Your task to perform on an android device: Go to eBay Image 0: 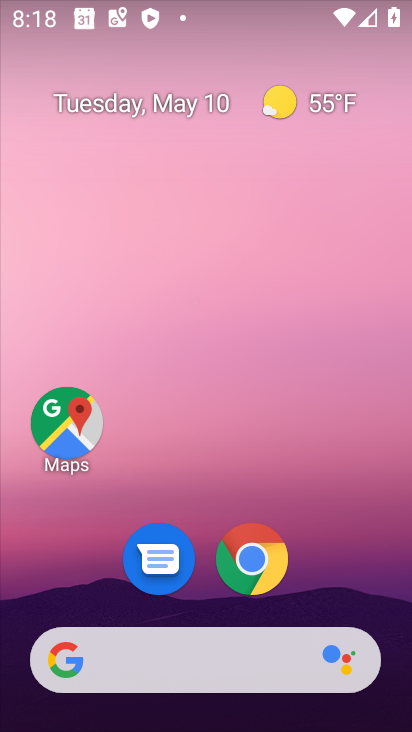
Step 0: click (250, 560)
Your task to perform on an android device: Go to eBay Image 1: 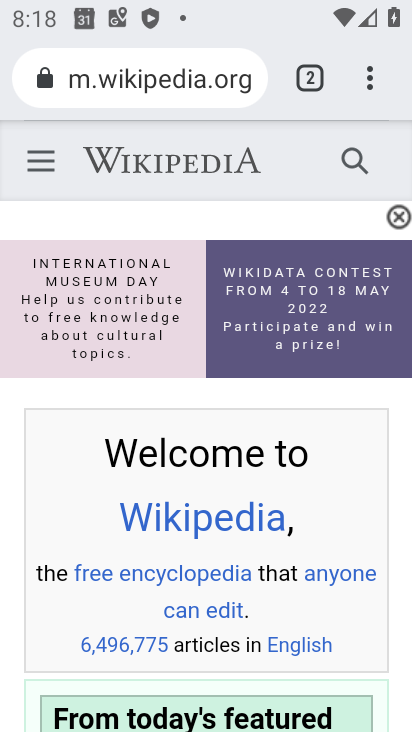
Step 1: click (368, 84)
Your task to perform on an android device: Go to eBay Image 2: 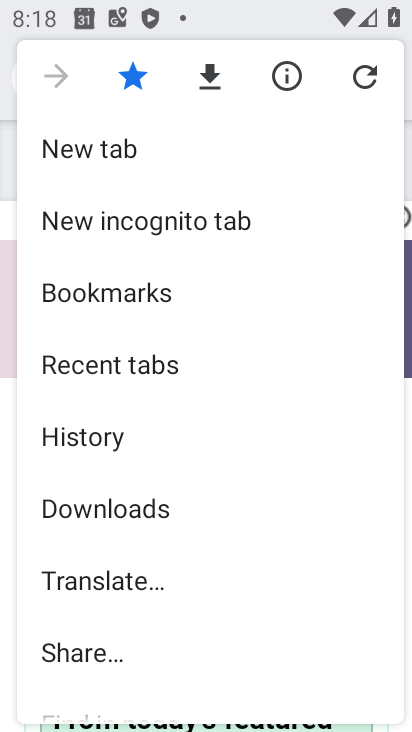
Step 2: click (85, 145)
Your task to perform on an android device: Go to eBay Image 3: 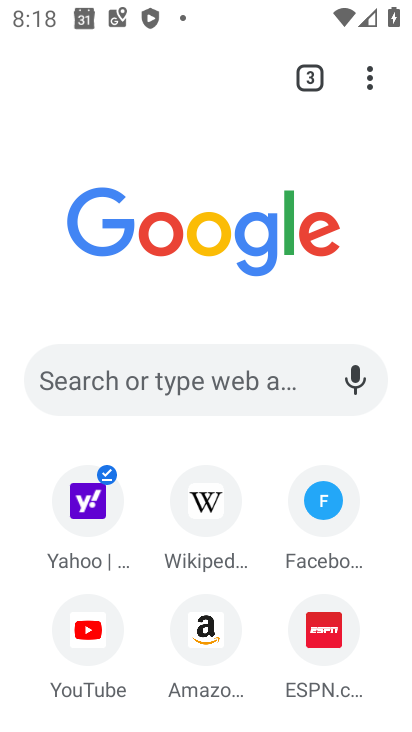
Step 3: click (230, 384)
Your task to perform on an android device: Go to eBay Image 4: 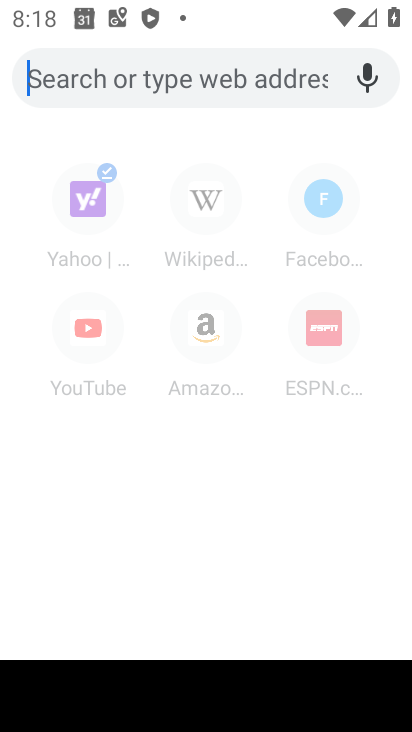
Step 4: type "eBay"
Your task to perform on an android device: Go to eBay Image 5: 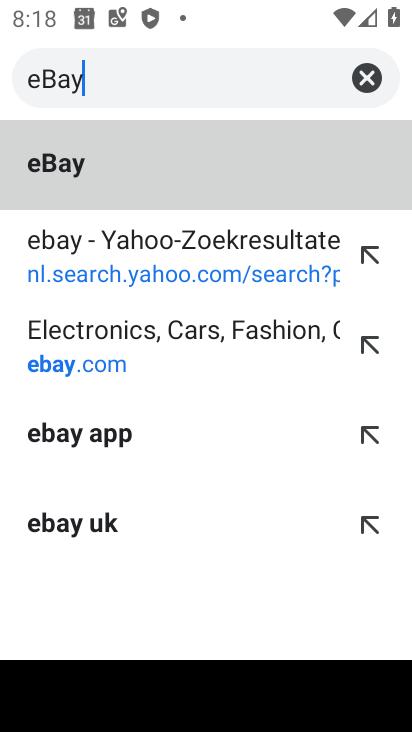
Step 5: click (99, 158)
Your task to perform on an android device: Go to eBay Image 6: 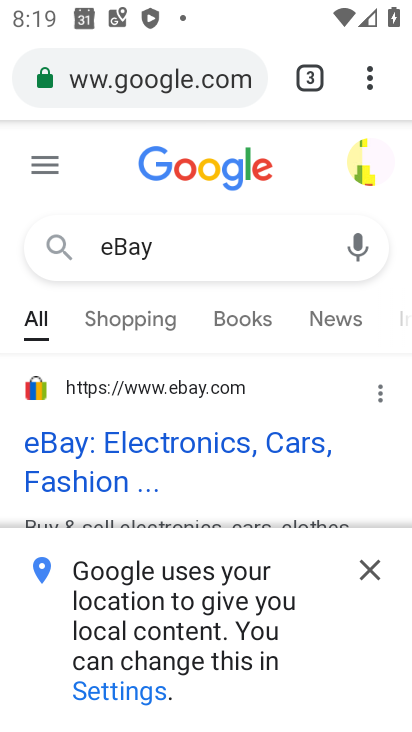
Step 6: click (98, 452)
Your task to perform on an android device: Go to eBay Image 7: 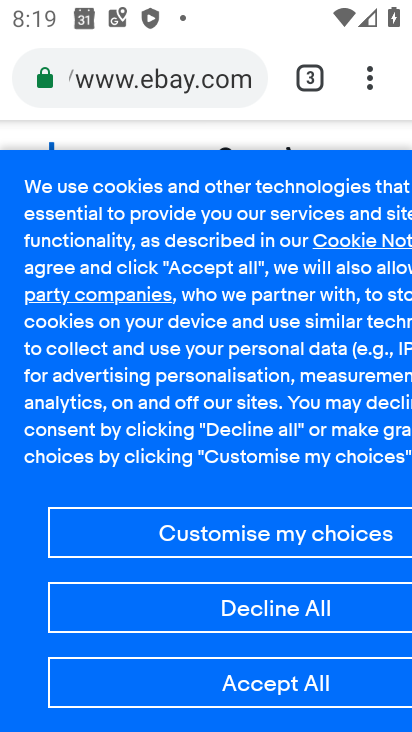
Step 7: task complete